Your task to perform on an android device: Show me productivity apps on the Play Store Image 0: 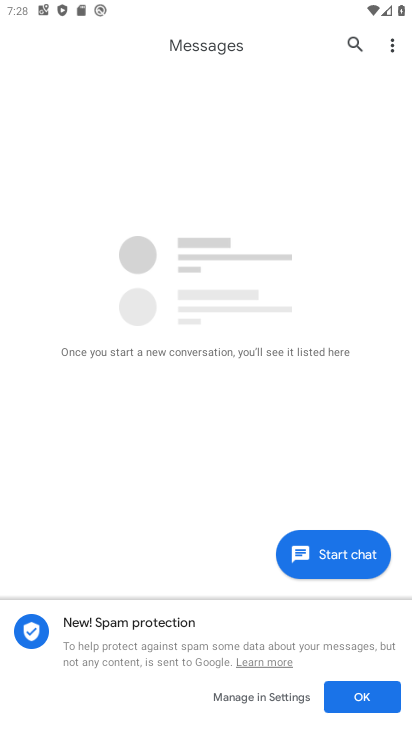
Step 0: press home button
Your task to perform on an android device: Show me productivity apps on the Play Store Image 1: 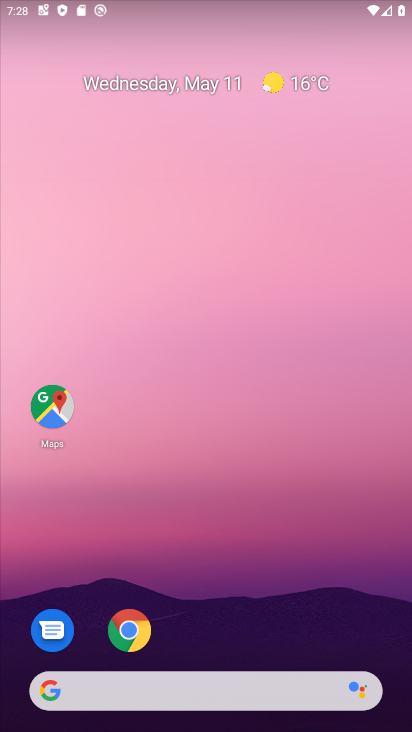
Step 1: drag from (361, 463) to (339, 67)
Your task to perform on an android device: Show me productivity apps on the Play Store Image 2: 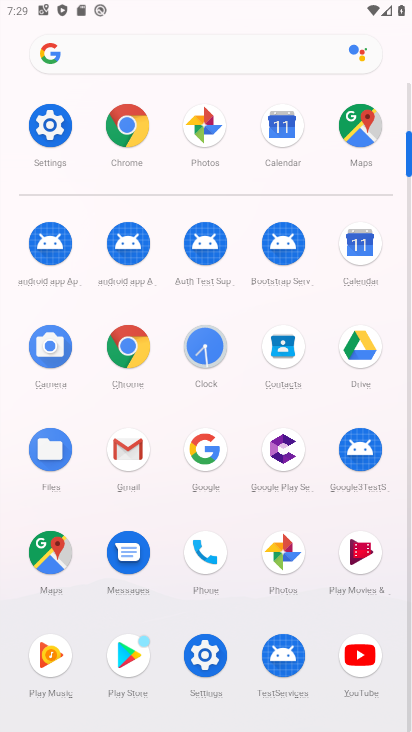
Step 2: drag from (390, 624) to (352, 222)
Your task to perform on an android device: Show me productivity apps on the Play Store Image 3: 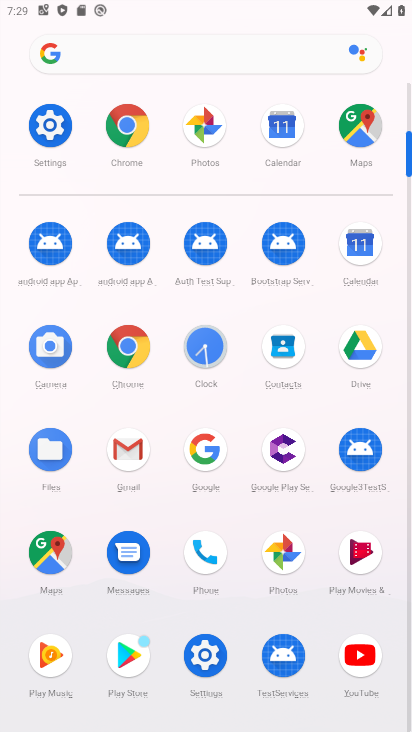
Step 3: click (120, 672)
Your task to perform on an android device: Show me productivity apps on the Play Store Image 4: 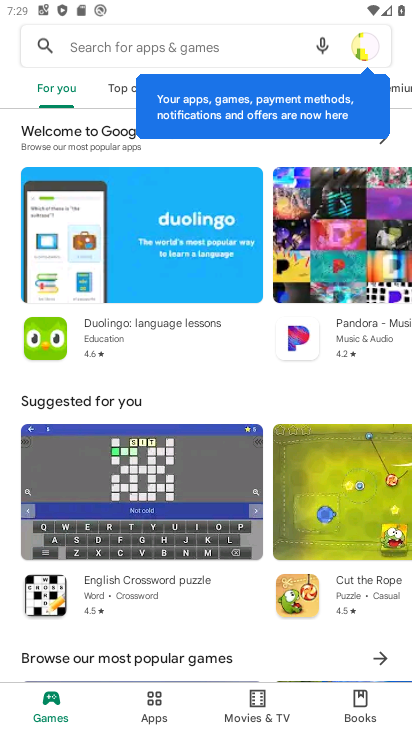
Step 4: click (94, 37)
Your task to perform on an android device: Show me productivity apps on the Play Store Image 5: 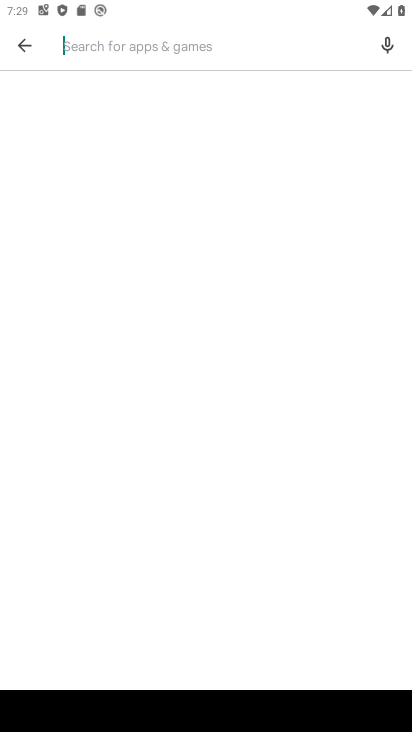
Step 5: type " productivity apps "
Your task to perform on an android device: Show me productivity apps on the Play Store Image 6: 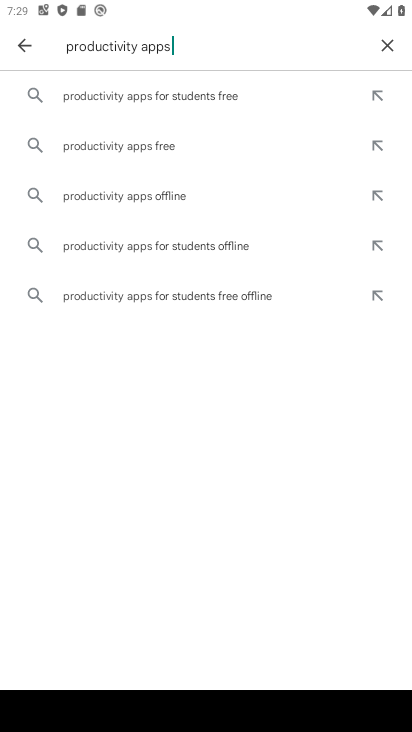
Step 6: press enter
Your task to perform on an android device: Show me productivity apps on the Play Store Image 7: 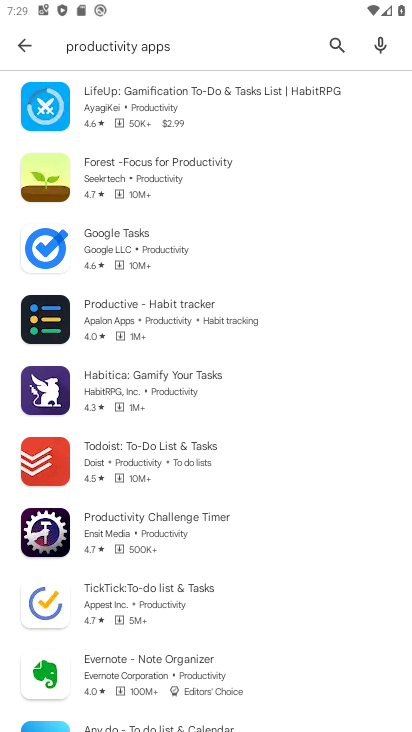
Step 7: task complete